Your task to perform on an android device: turn off location history Image 0: 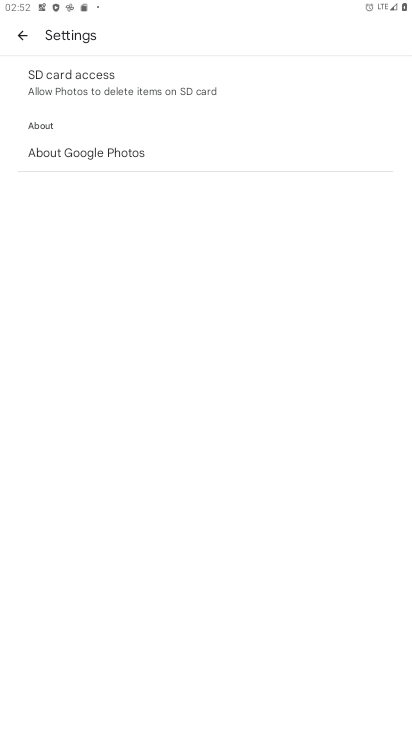
Step 0: click (25, 38)
Your task to perform on an android device: turn off location history Image 1: 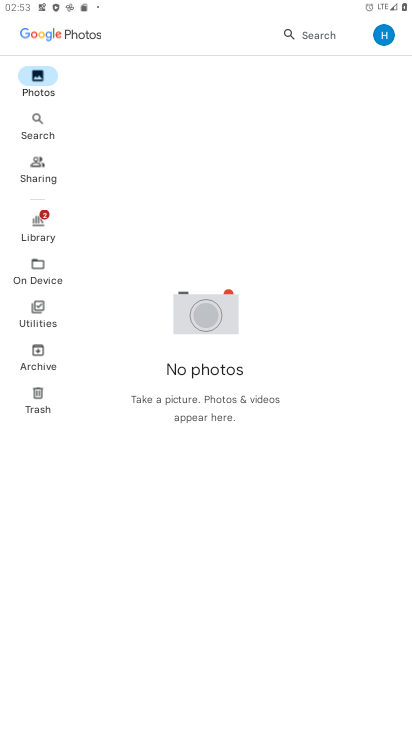
Step 1: press home button
Your task to perform on an android device: turn off location history Image 2: 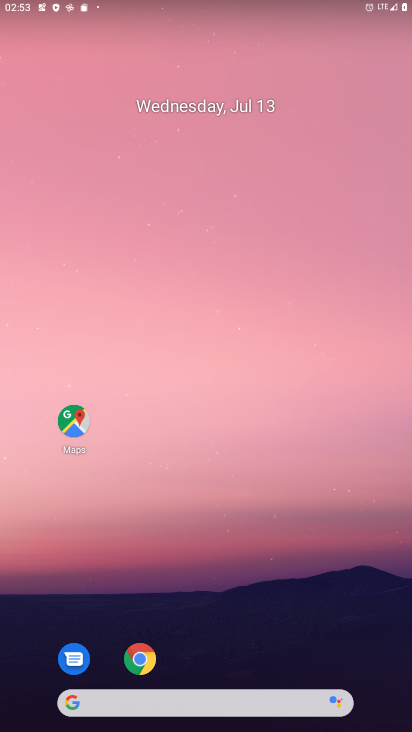
Step 2: drag from (190, 709) to (190, 574)
Your task to perform on an android device: turn off location history Image 3: 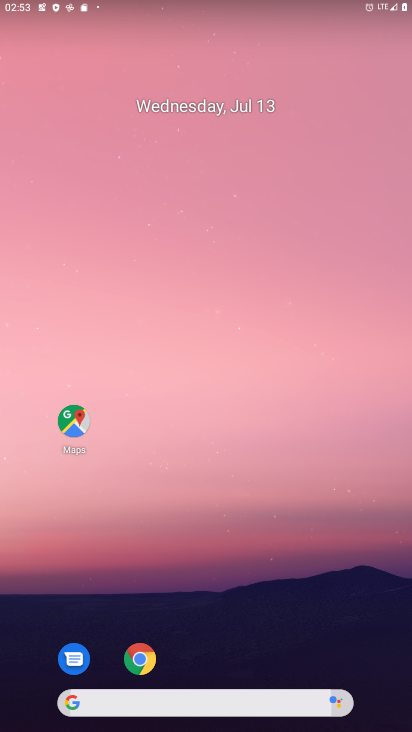
Step 3: drag from (206, 202) to (206, 106)
Your task to perform on an android device: turn off location history Image 4: 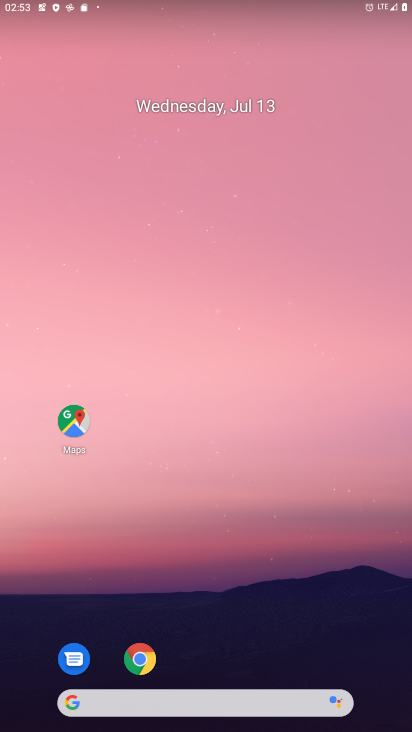
Step 4: drag from (209, 723) to (158, 85)
Your task to perform on an android device: turn off location history Image 5: 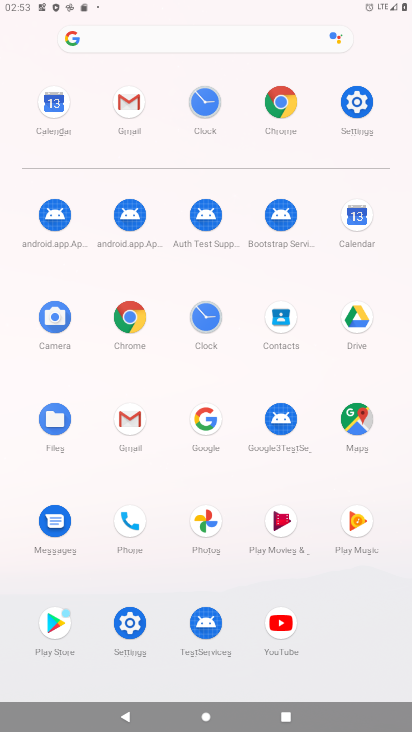
Step 5: click (361, 99)
Your task to perform on an android device: turn off location history Image 6: 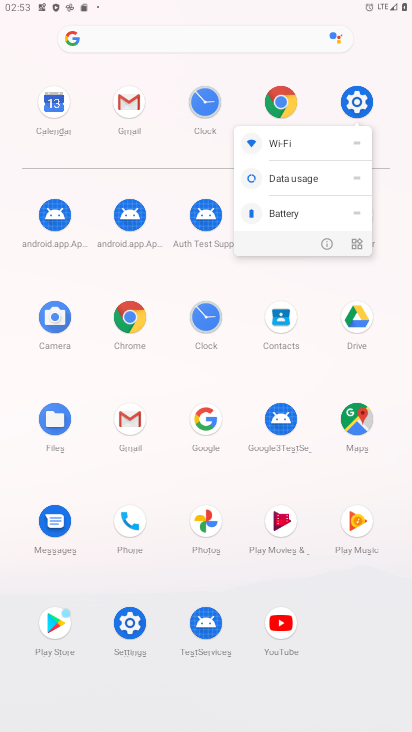
Step 6: click (358, 101)
Your task to perform on an android device: turn off location history Image 7: 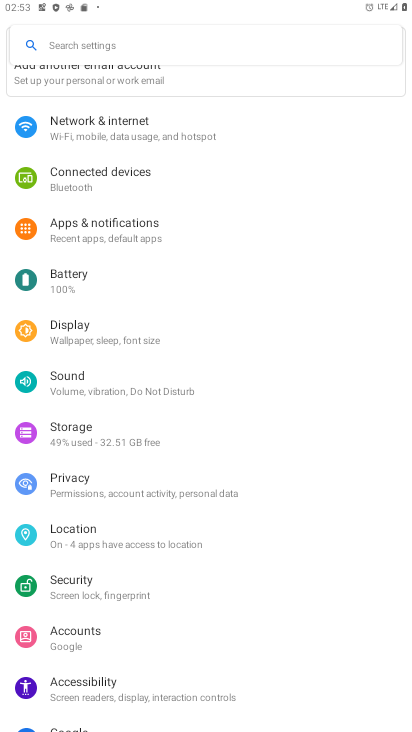
Step 7: click (71, 533)
Your task to perform on an android device: turn off location history Image 8: 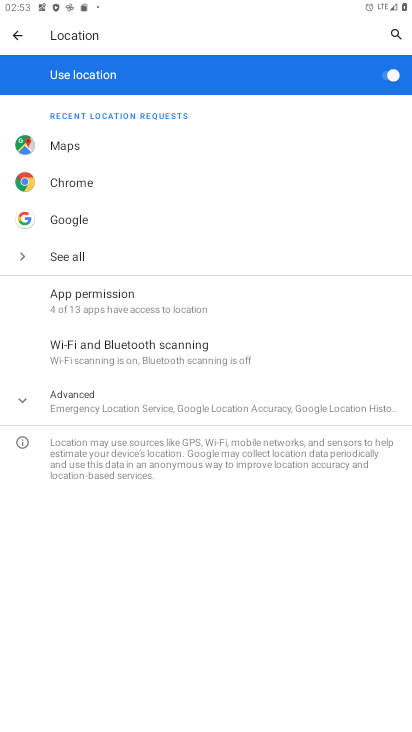
Step 8: click (77, 387)
Your task to perform on an android device: turn off location history Image 9: 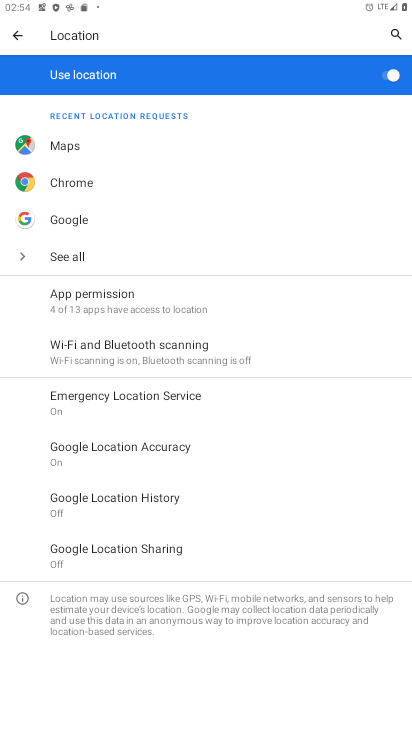
Step 9: click (145, 496)
Your task to perform on an android device: turn off location history Image 10: 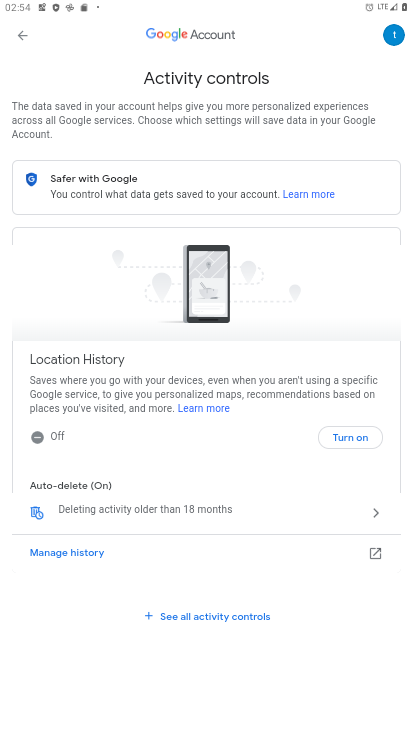
Step 10: task complete